Your task to perform on an android device: Go to network settings Image 0: 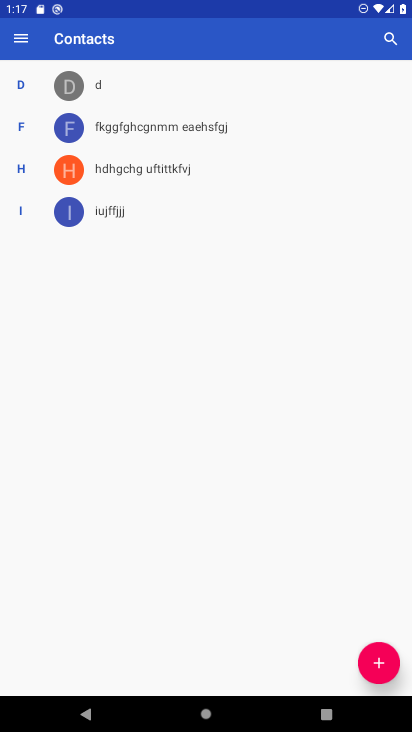
Step 0: press home button
Your task to perform on an android device: Go to network settings Image 1: 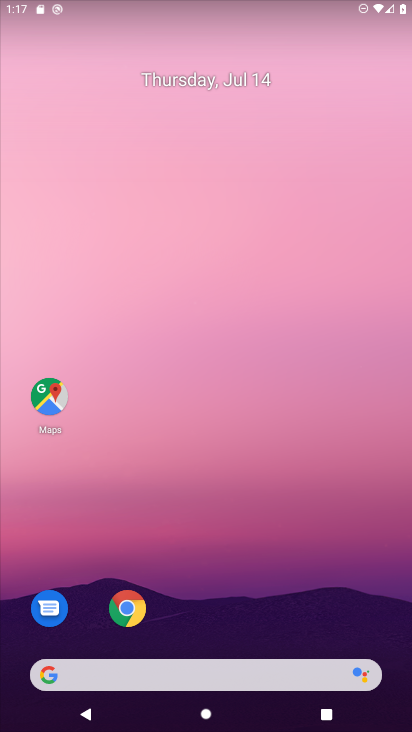
Step 1: drag from (253, 721) to (255, 215)
Your task to perform on an android device: Go to network settings Image 2: 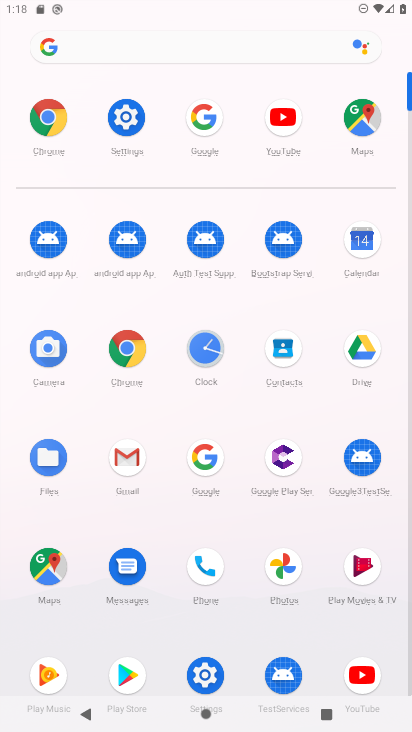
Step 2: click (126, 113)
Your task to perform on an android device: Go to network settings Image 3: 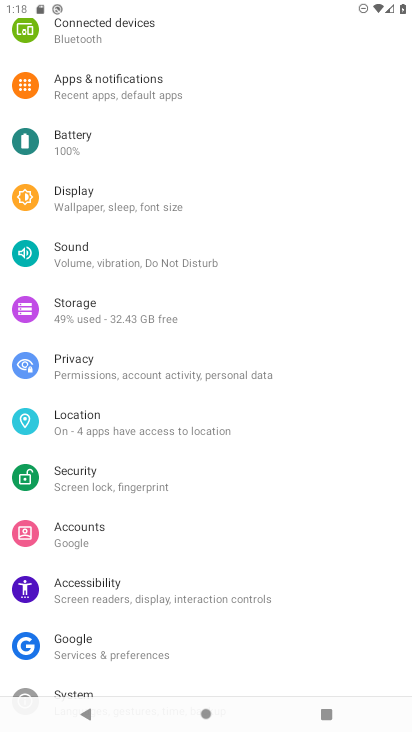
Step 3: drag from (106, 82) to (100, 528)
Your task to perform on an android device: Go to network settings Image 4: 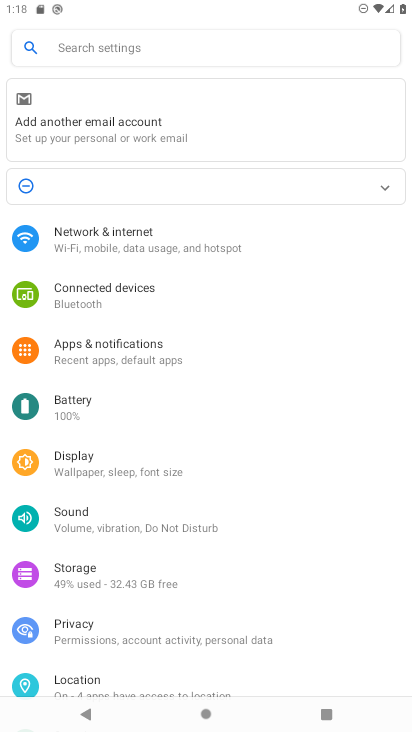
Step 4: click (85, 240)
Your task to perform on an android device: Go to network settings Image 5: 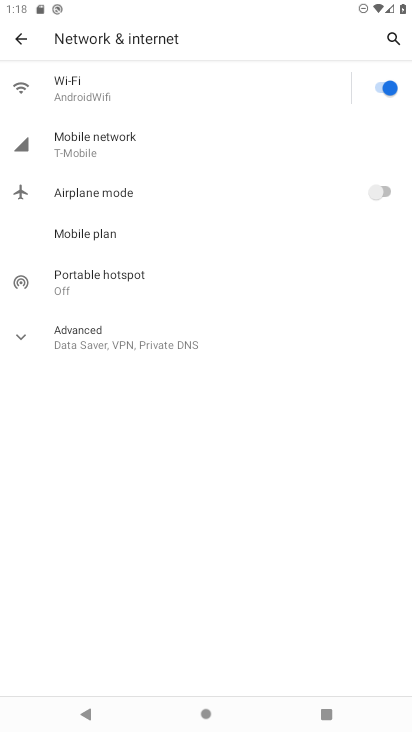
Step 5: click (90, 151)
Your task to perform on an android device: Go to network settings Image 6: 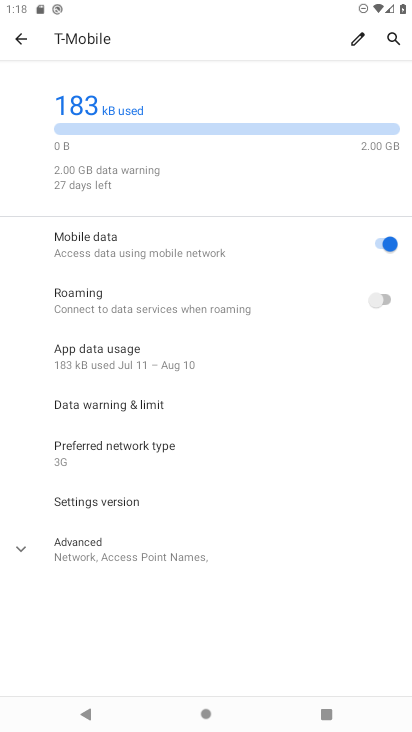
Step 6: task complete